Your task to perform on an android device: Go to internet settings Image 0: 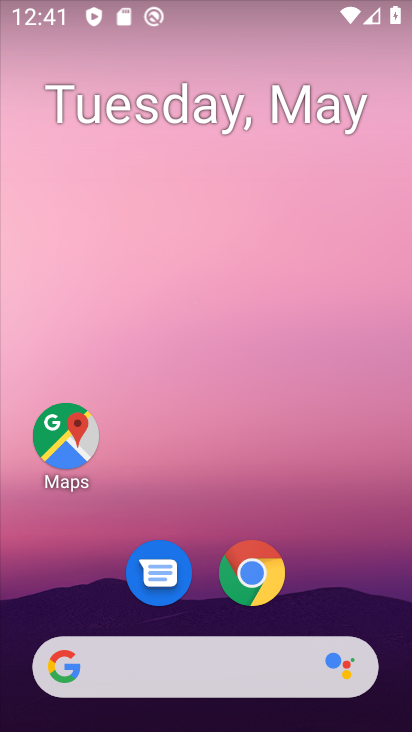
Step 0: drag from (342, 593) to (337, 7)
Your task to perform on an android device: Go to internet settings Image 1: 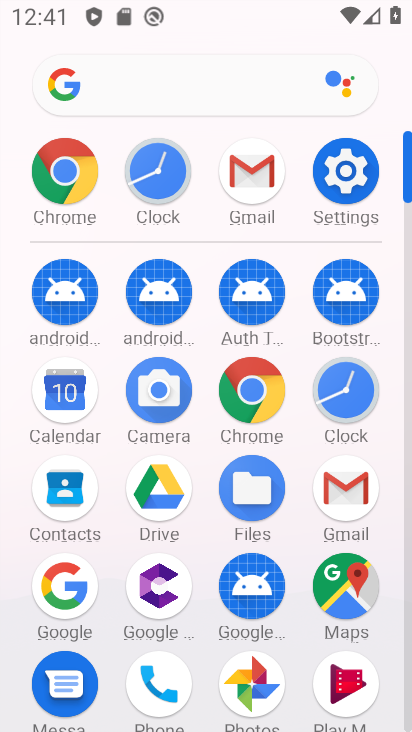
Step 1: click (349, 196)
Your task to perform on an android device: Go to internet settings Image 2: 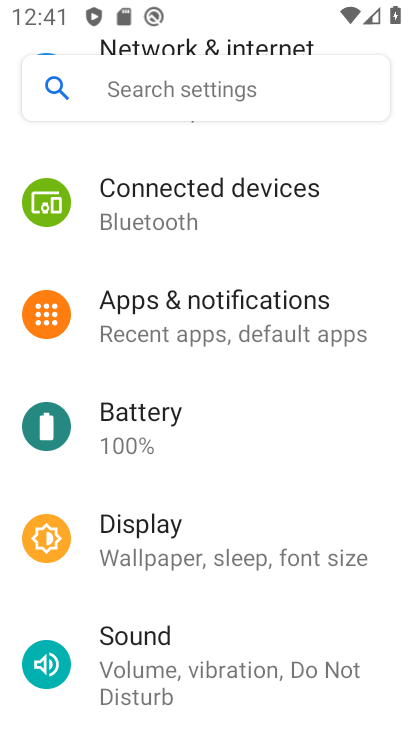
Step 2: drag from (327, 294) to (319, 579)
Your task to perform on an android device: Go to internet settings Image 3: 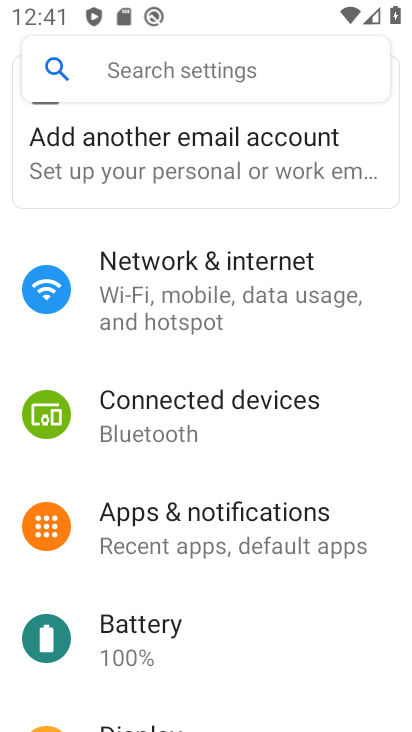
Step 3: click (162, 246)
Your task to perform on an android device: Go to internet settings Image 4: 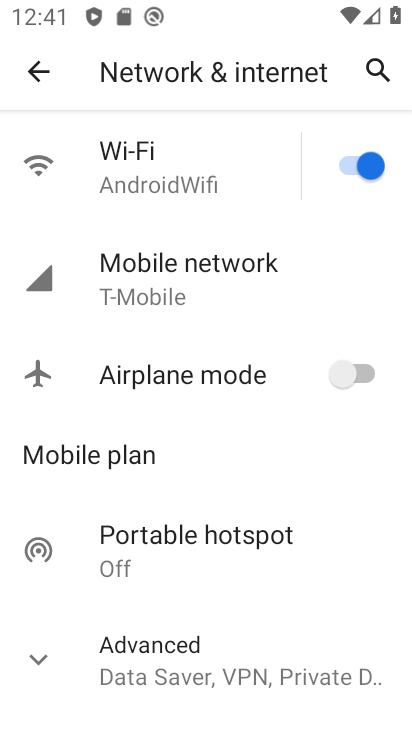
Step 4: click (188, 271)
Your task to perform on an android device: Go to internet settings Image 5: 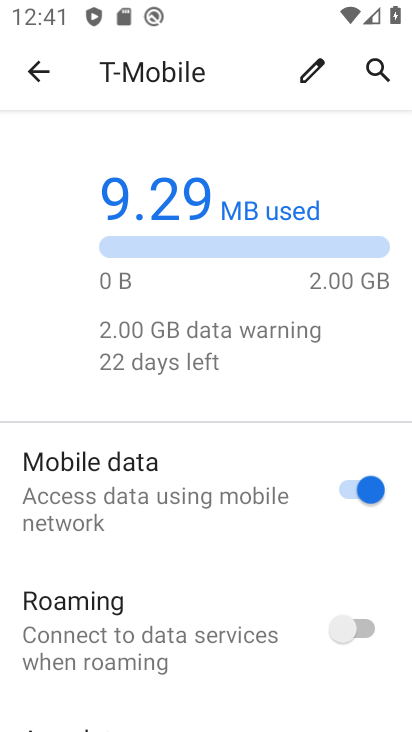
Step 5: task complete